Your task to perform on an android device: change the clock display to show seconds Image 0: 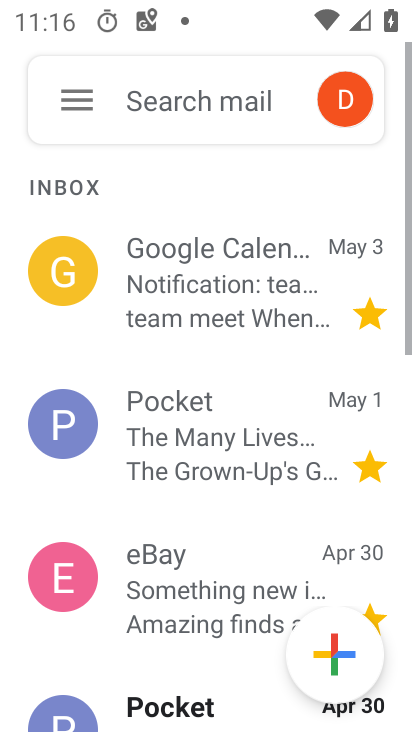
Step 0: press home button
Your task to perform on an android device: change the clock display to show seconds Image 1: 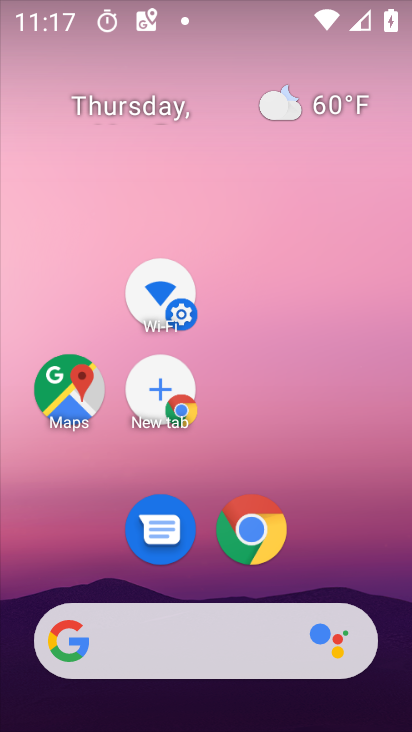
Step 1: drag from (350, 579) to (166, 170)
Your task to perform on an android device: change the clock display to show seconds Image 2: 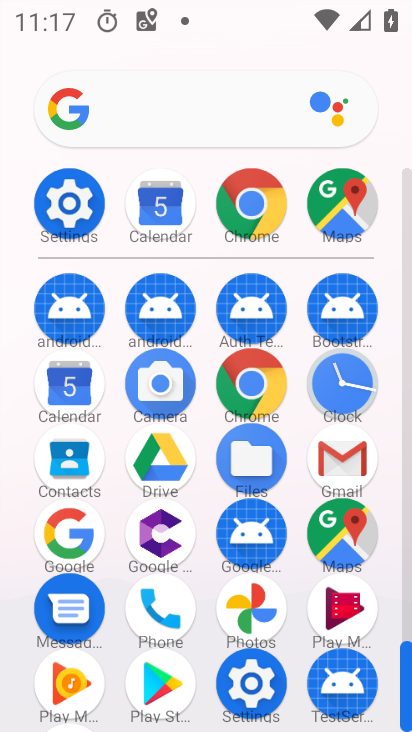
Step 2: click (338, 393)
Your task to perform on an android device: change the clock display to show seconds Image 3: 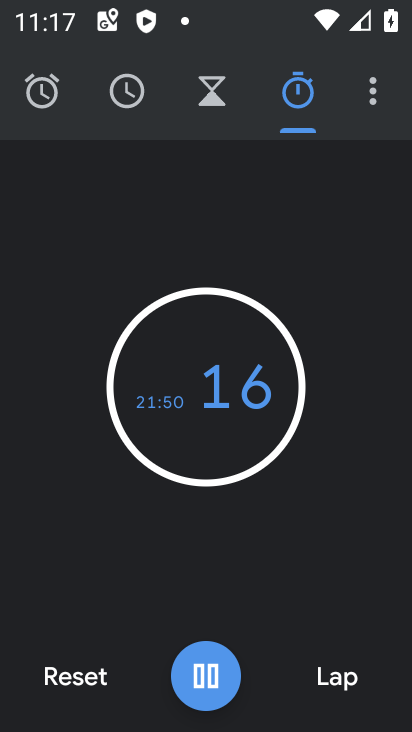
Step 3: click (210, 671)
Your task to perform on an android device: change the clock display to show seconds Image 4: 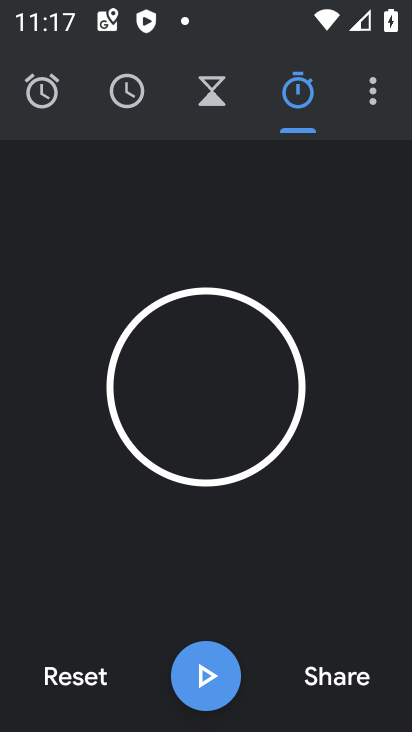
Step 4: click (366, 100)
Your task to perform on an android device: change the clock display to show seconds Image 5: 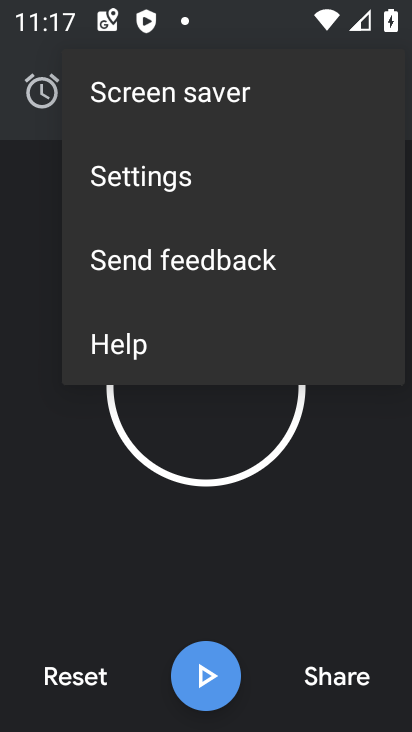
Step 5: click (132, 181)
Your task to perform on an android device: change the clock display to show seconds Image 6: 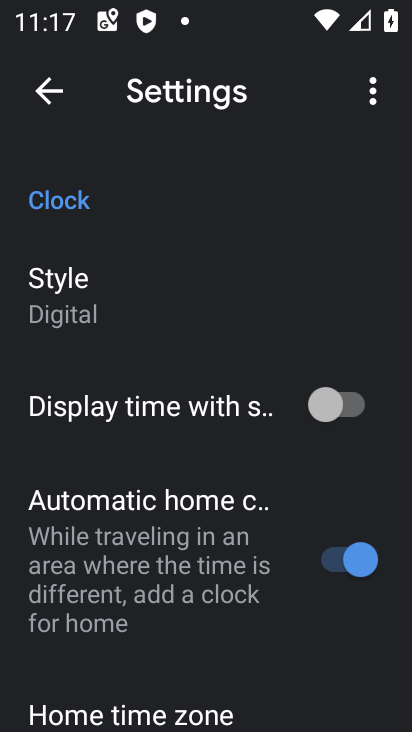
Step 6: click (329, 403)
Your task to perform on an android device: change the clock display to show seconds Image 7: 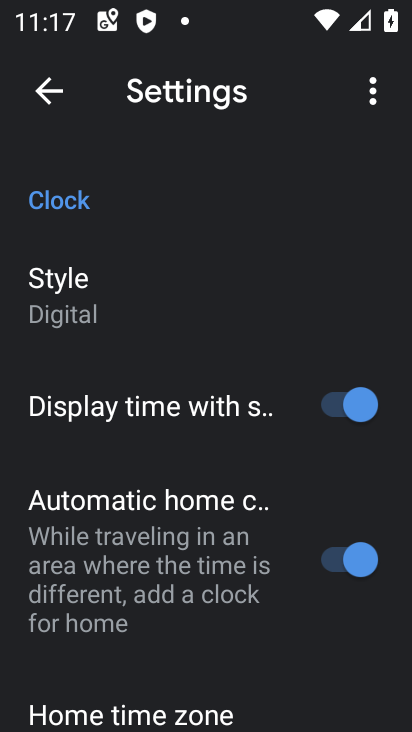
Step 7: task complete